Your task to perform on an android device: Show me popular videos on Youtube Image 0: 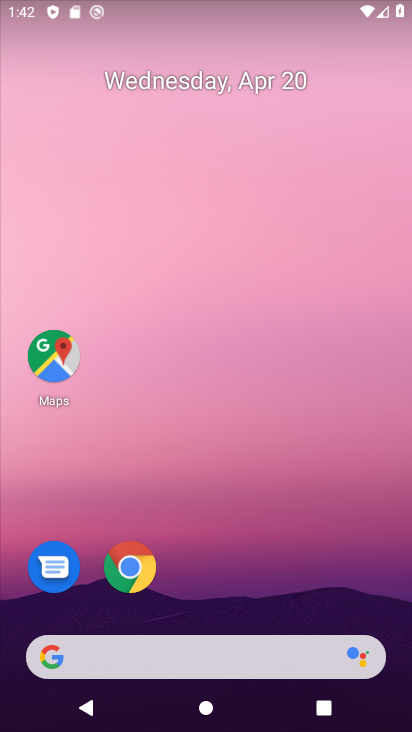
Step 0: drag from (230, 650) to (180, 110)
Your task to perform on an android device: Show me popular videos on Youtube Image 1: 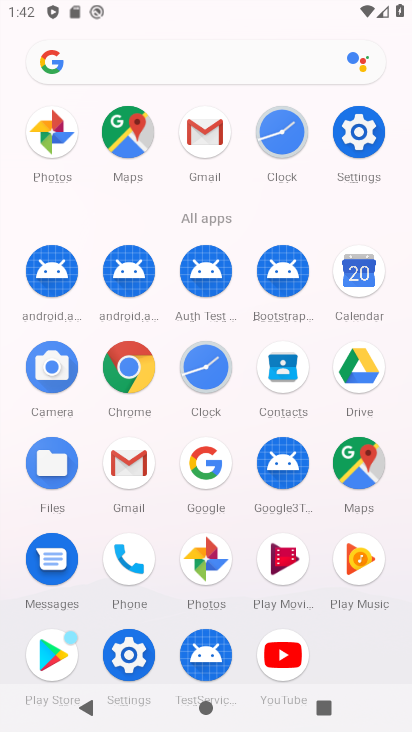
Step 1: click (286, 650)
Your task to perform on an android device: Show me popular videos on Youtube Image 2: 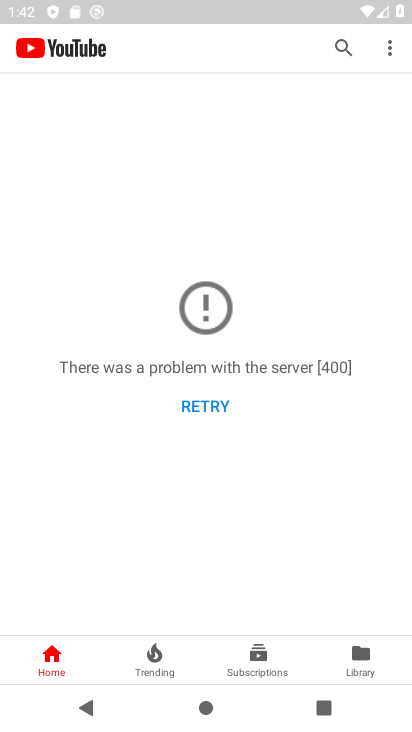
Step 2: click (163, 642)
Your task to perform on an android device: Show me popular videos on Youtube Image 3: 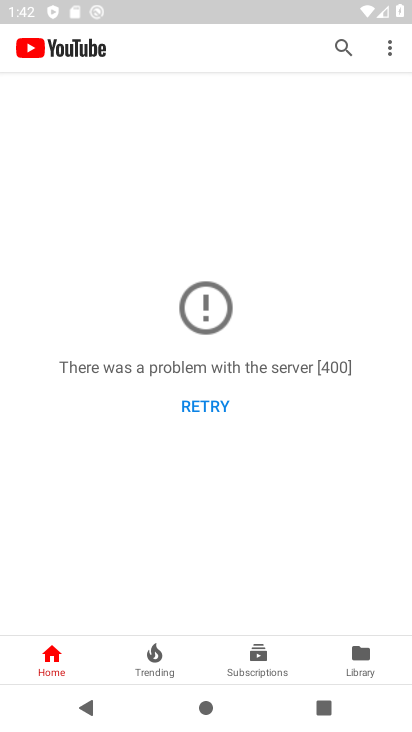
Step 3: task complete